Your task to perform on an android device: Search for "dell alienware" on target, select the first entry, add it to the cart, then select checkout. Image 0: 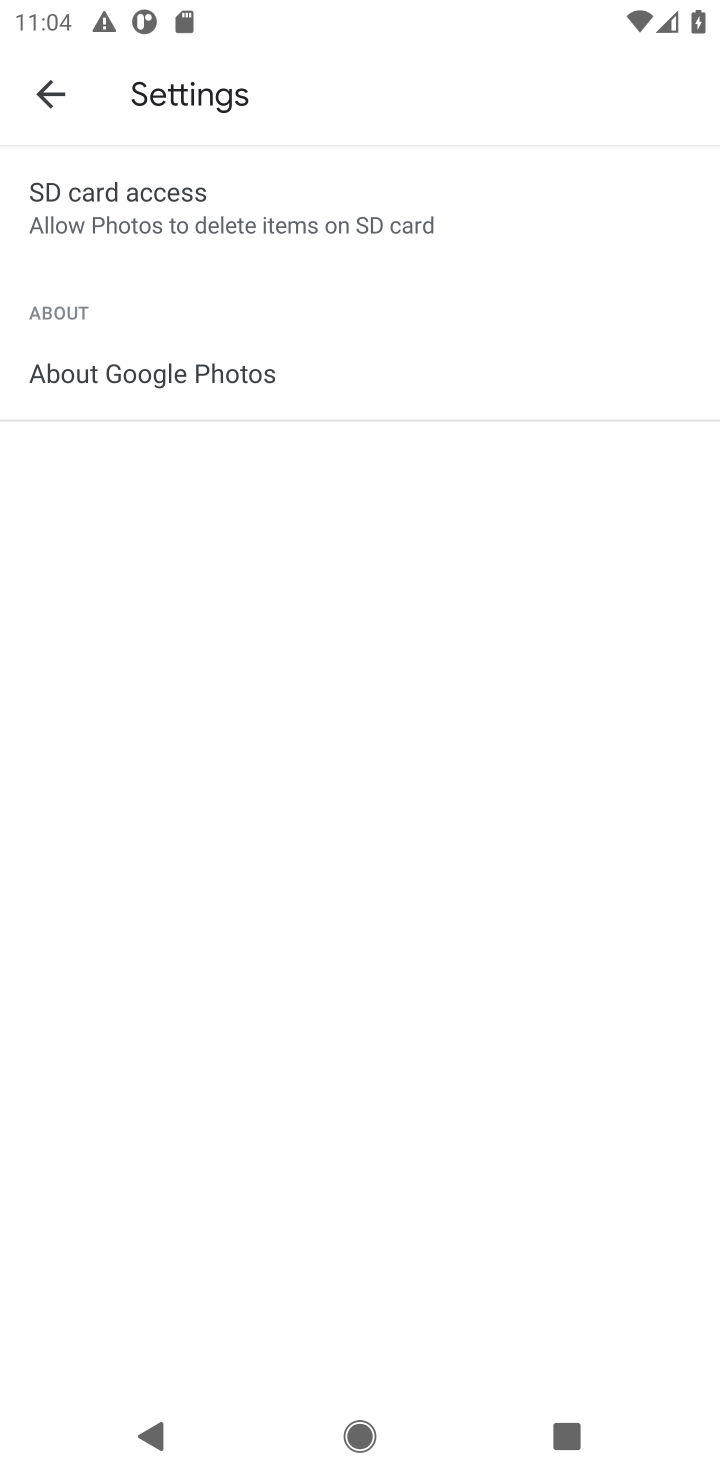
Step 0: press home button
Your task to perform on an android device: Search for "dell alienware" on target, select the first entry, add it to the cart, then select checkout. Image 1: 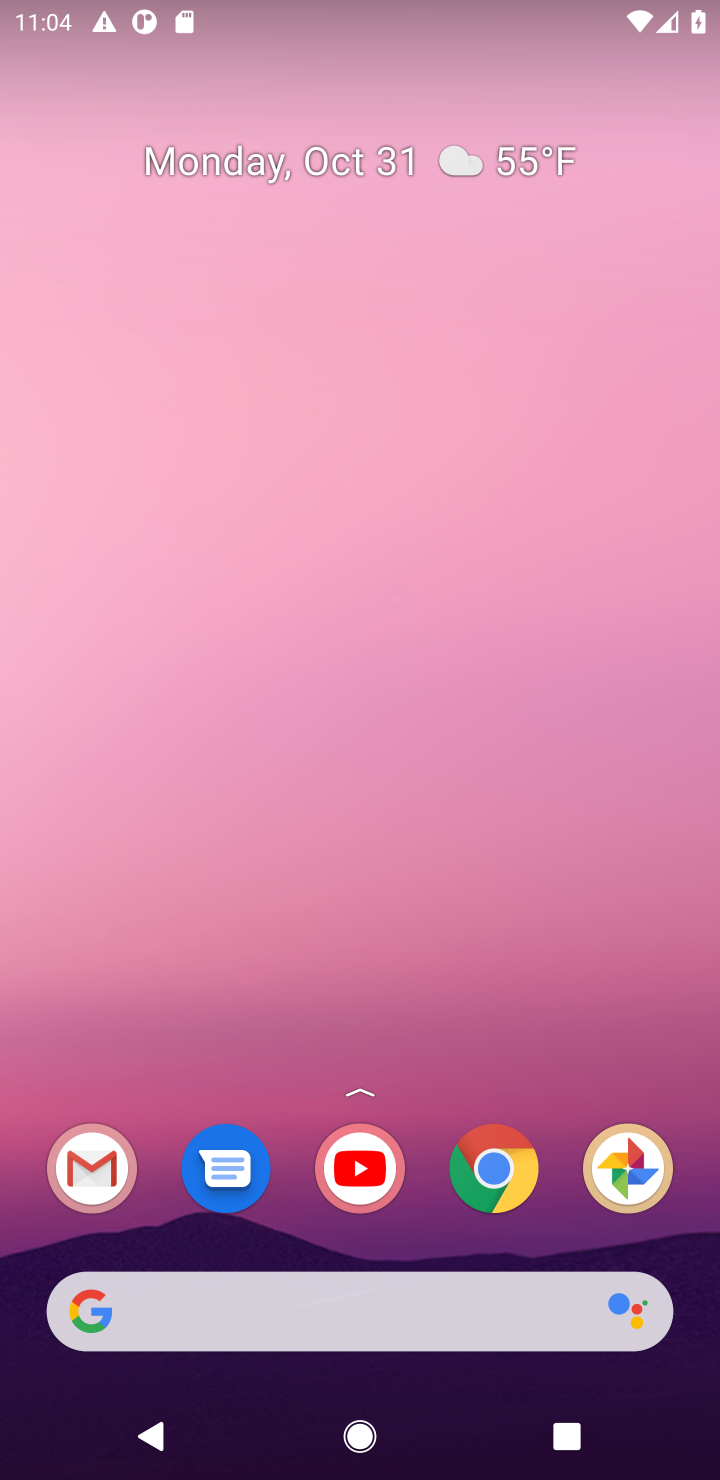
Step 1: click (497, 1184)
Your task to perform on an android device: Search for "dell alienware" on target, select the first entry, add it to the cart, then select checkout. Image 2: 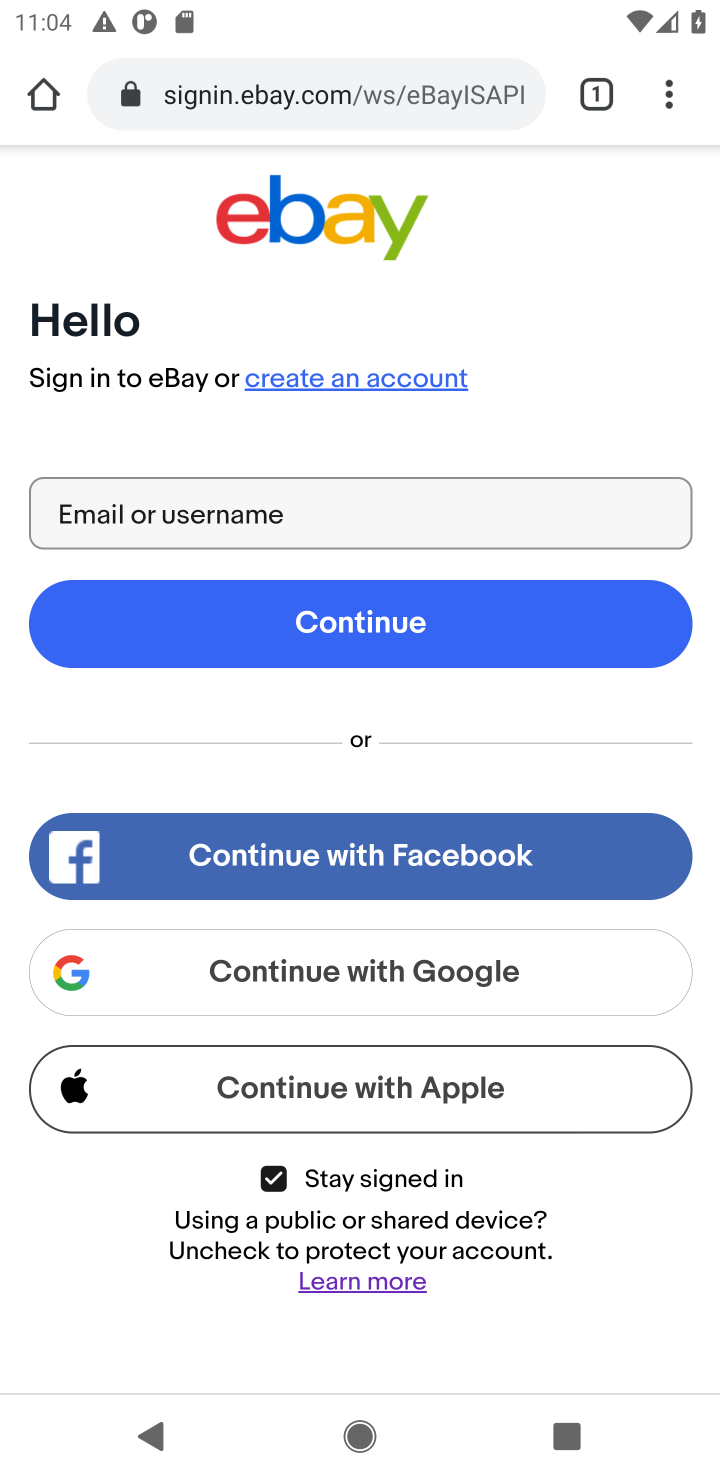
Step 2: click (400, 99)
Your task to perform on an android device: Search for "dell alienware" on target, select the first entry, add it to the cart, then select checkout. Image 3: 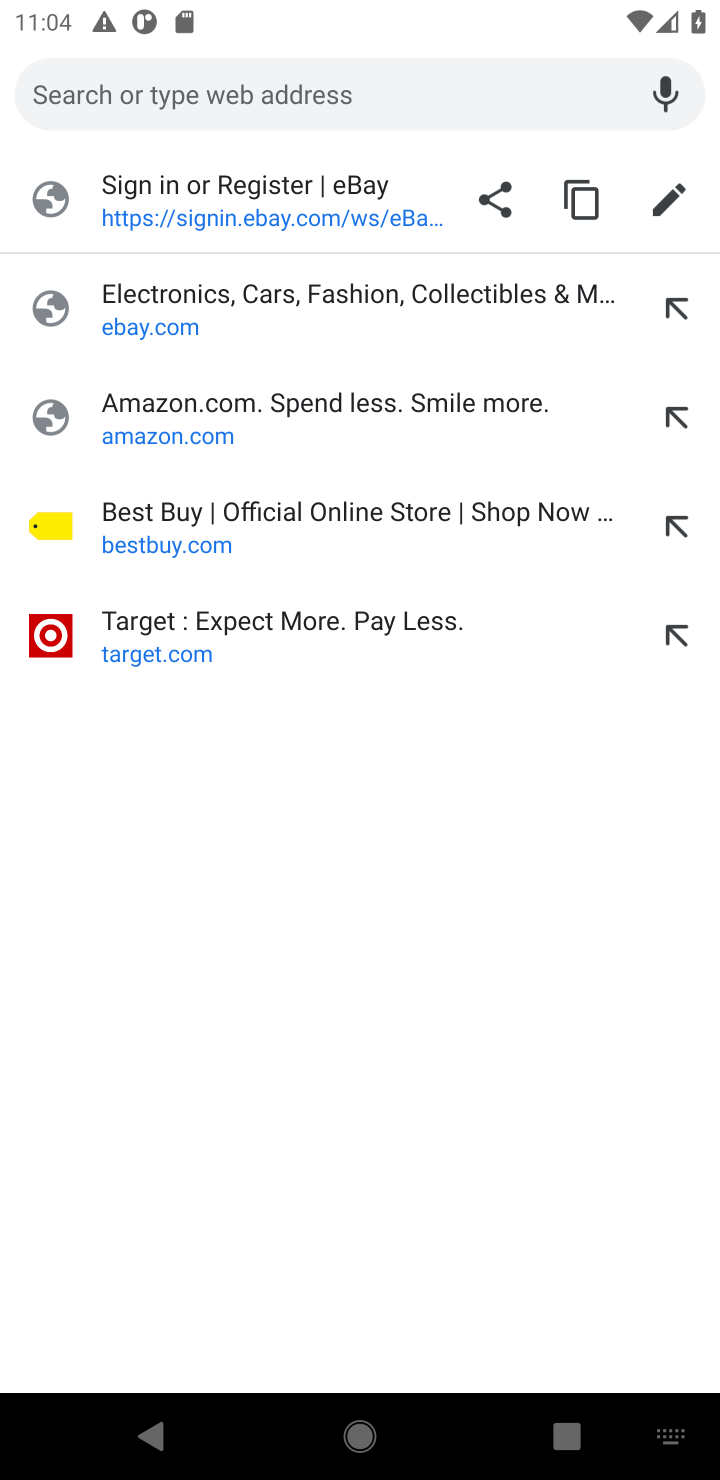
Step 3: type "target"
Your task to perform on an android device: Search for "dell alienware" on target, select the first entry, add it to the cart, then select checkout. Image 4: 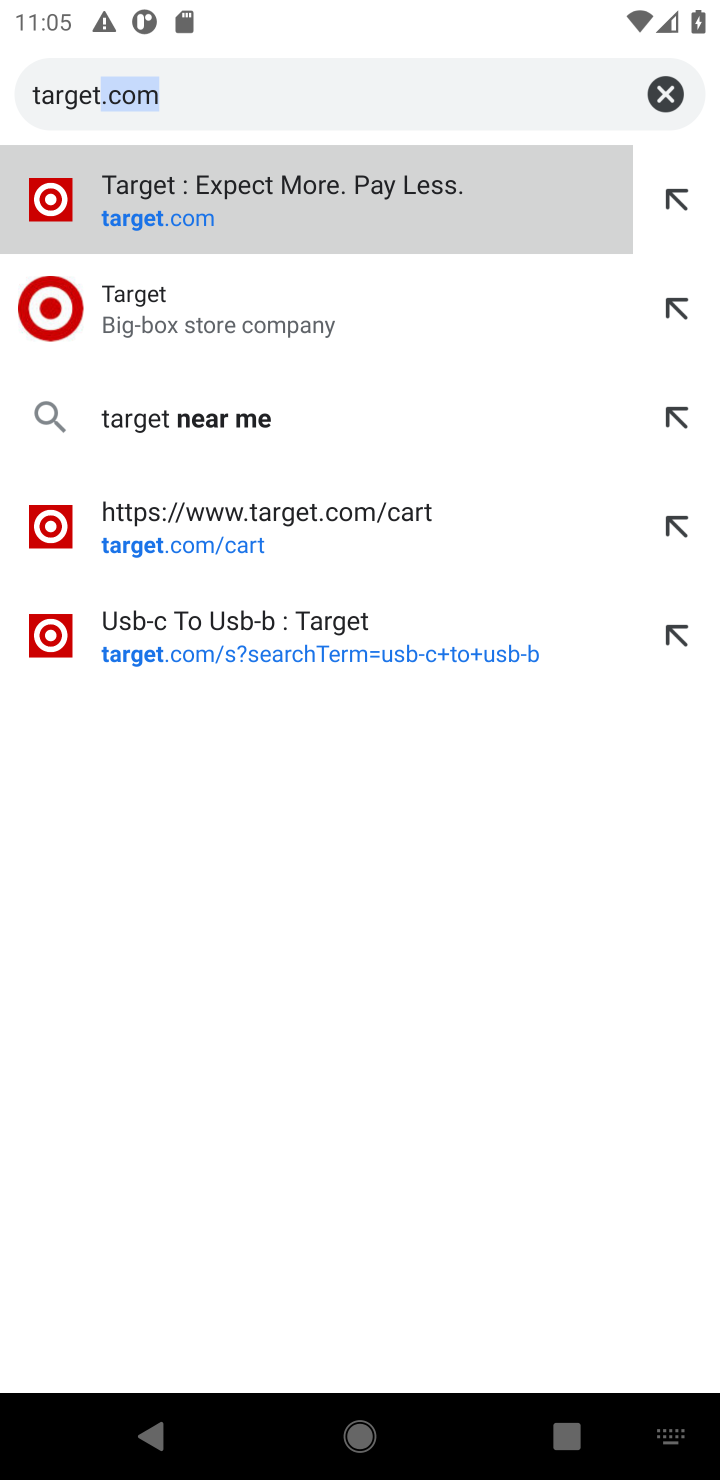
Step 4: press enter
Your task to perform on an android device: Search for "dell alienware" on target, select the first entry, add it to the cart, then select checkout. Image 5: 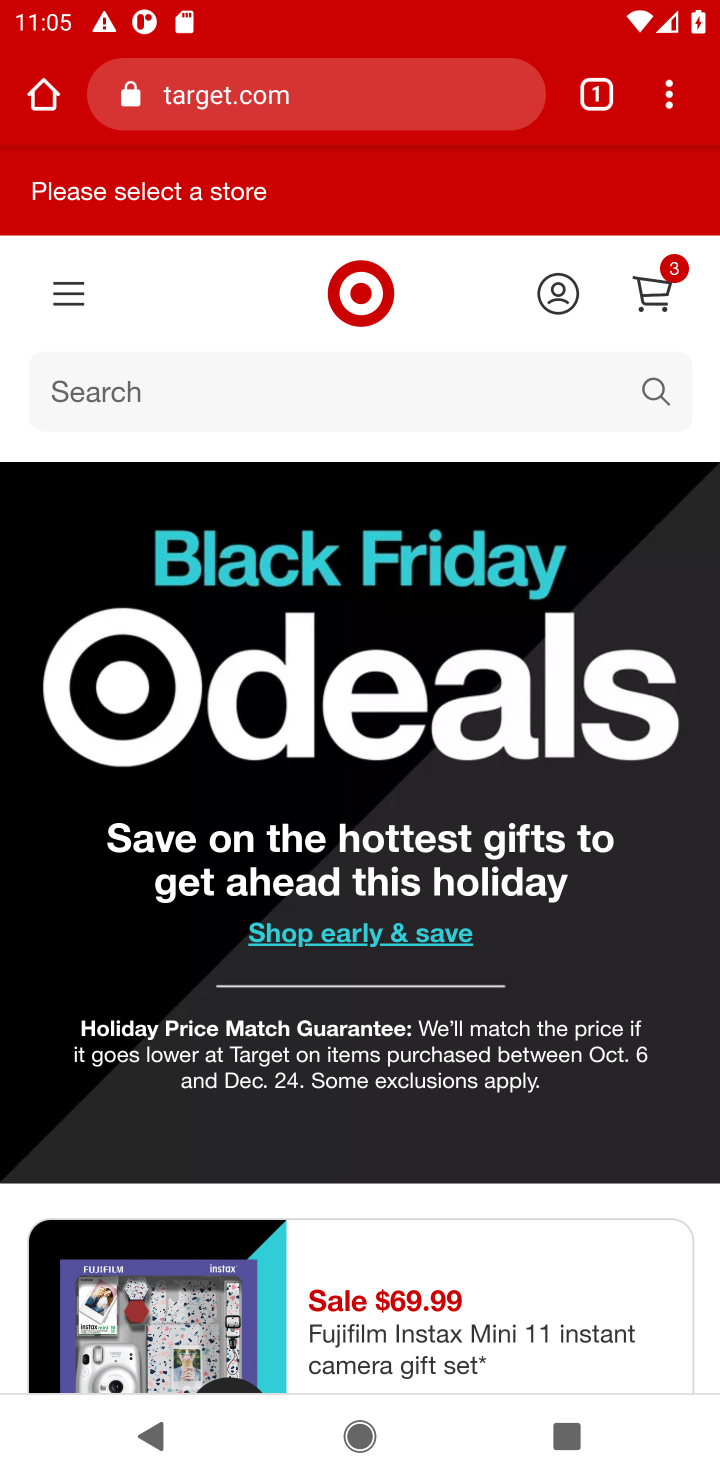
Step 5: click (311, 382)
Your task to perform on an android device: Search for "dell alienware" on target, select the first entry, add it to the cart, then select checkout. Image 6: 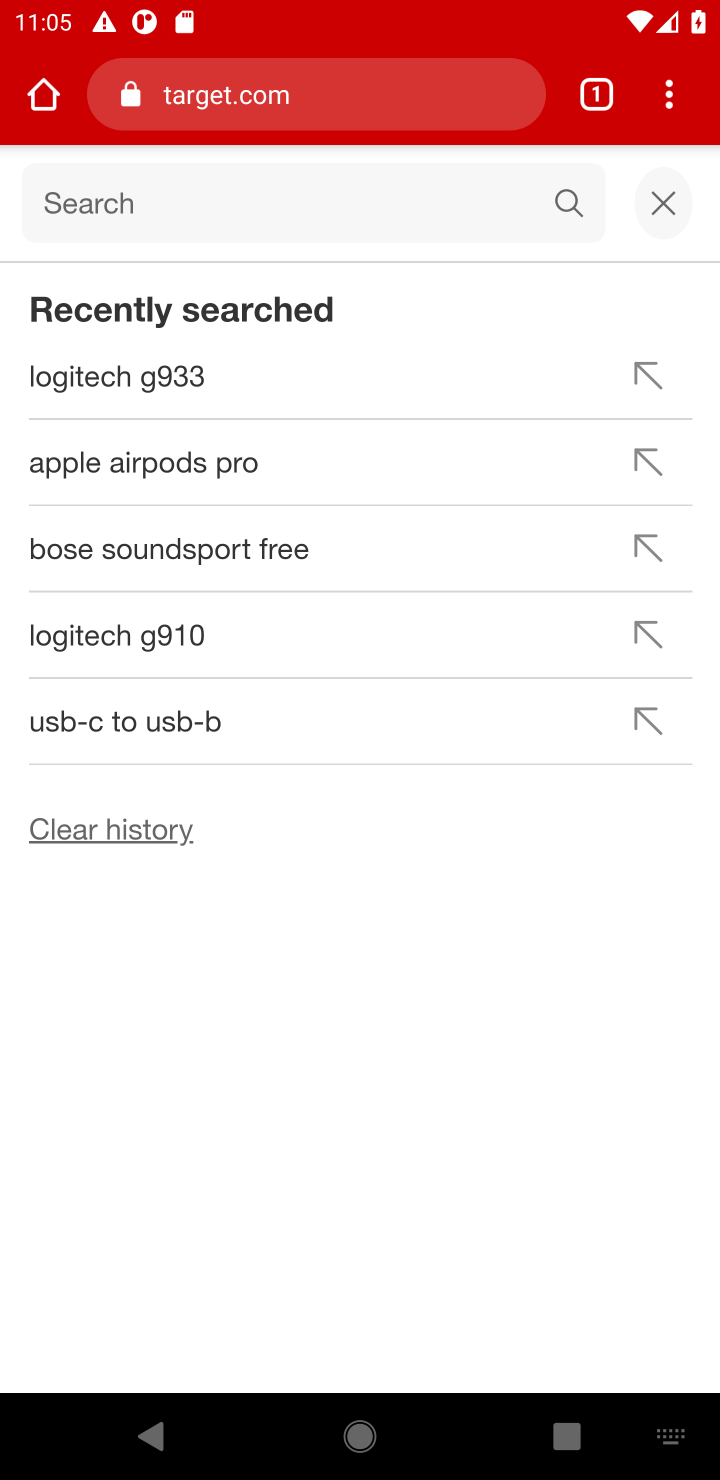
Step 6: type "dell alienware"
Your task to perform on an android device: Search for "dell alienware" on target, select the first entry, add it to the cart, then select checkout. Image 7: 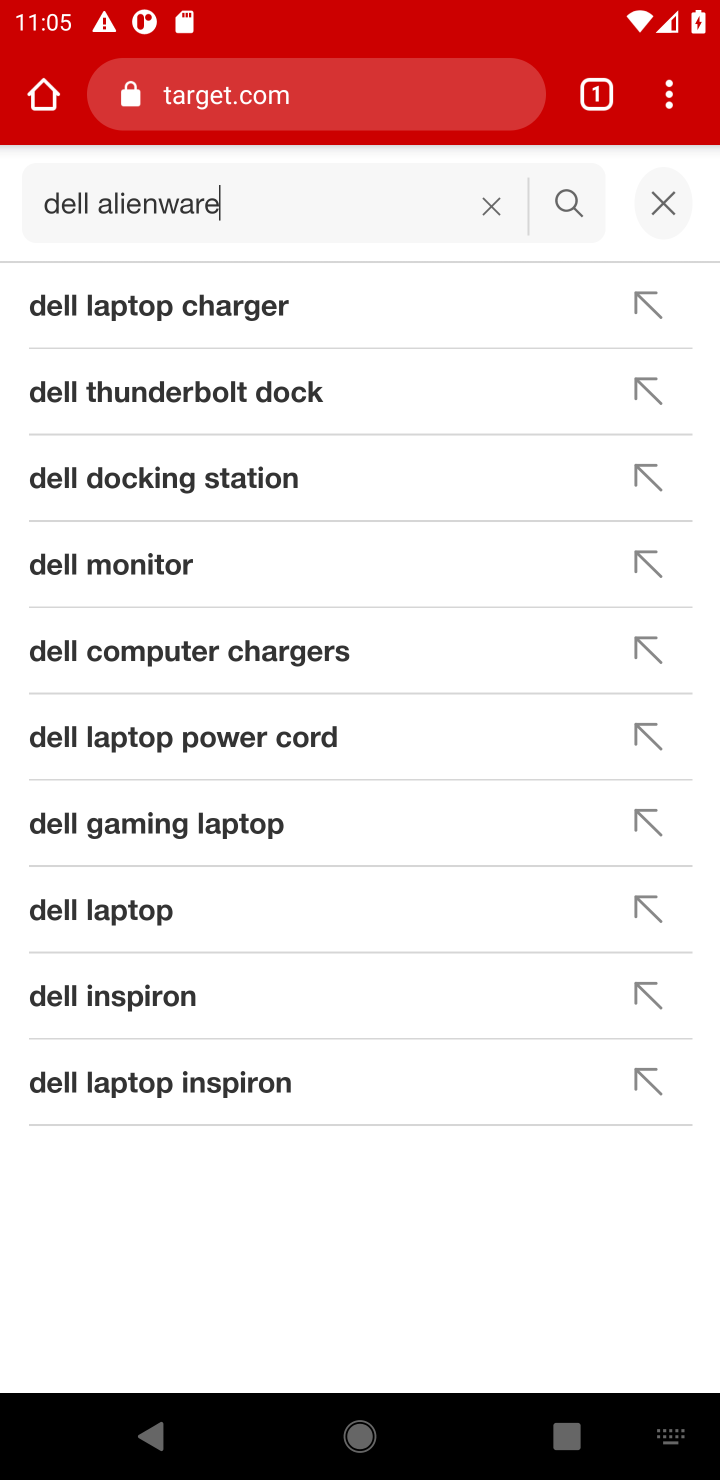
Step 7: press enter
Your task to perform on an android device: Search for "dell alienware" on target, select the first entry, add it to the cart, then select checkout. Image 8: 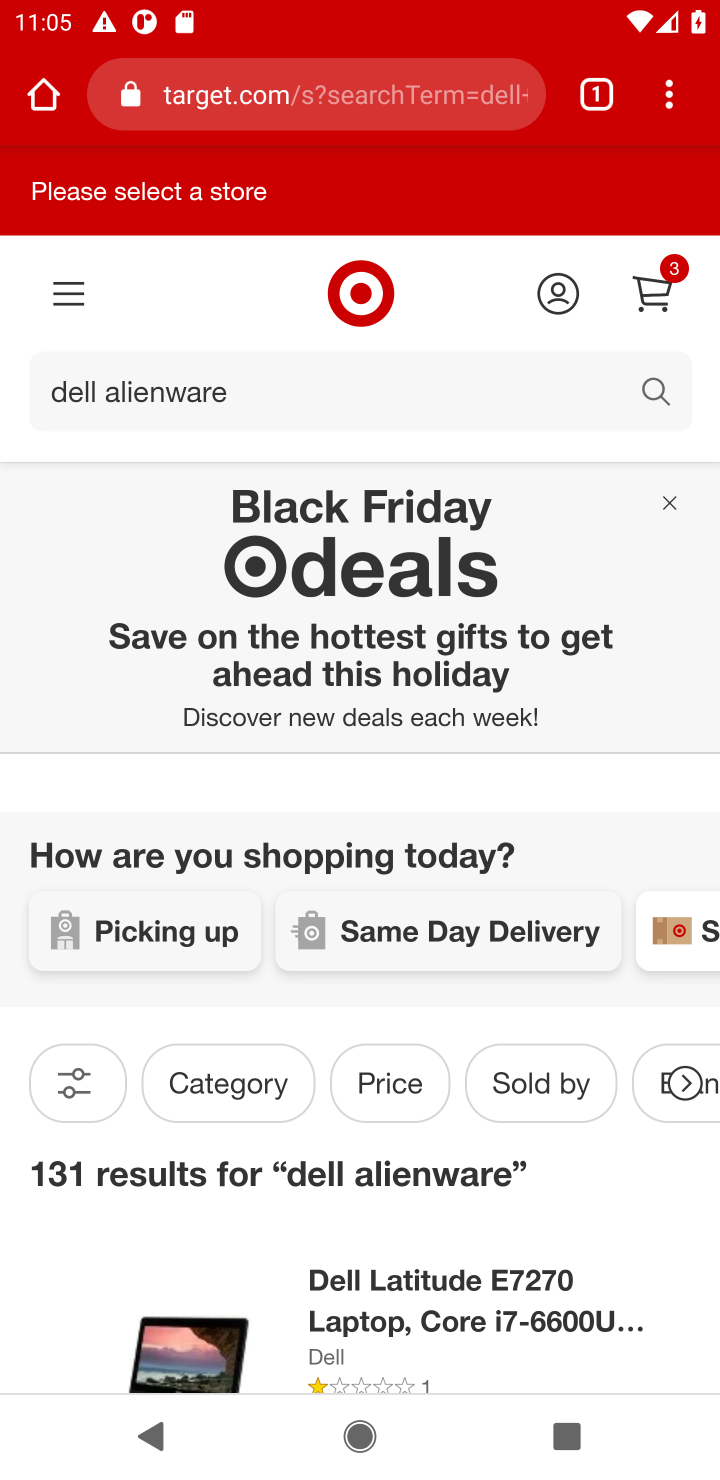
Step 8: drag from (468, 1006) to (457, 623)
Your task to perform on an android device: Search for "dell alienware" on target, select the first entry, add it to the cart, then select checkout. Image 9: 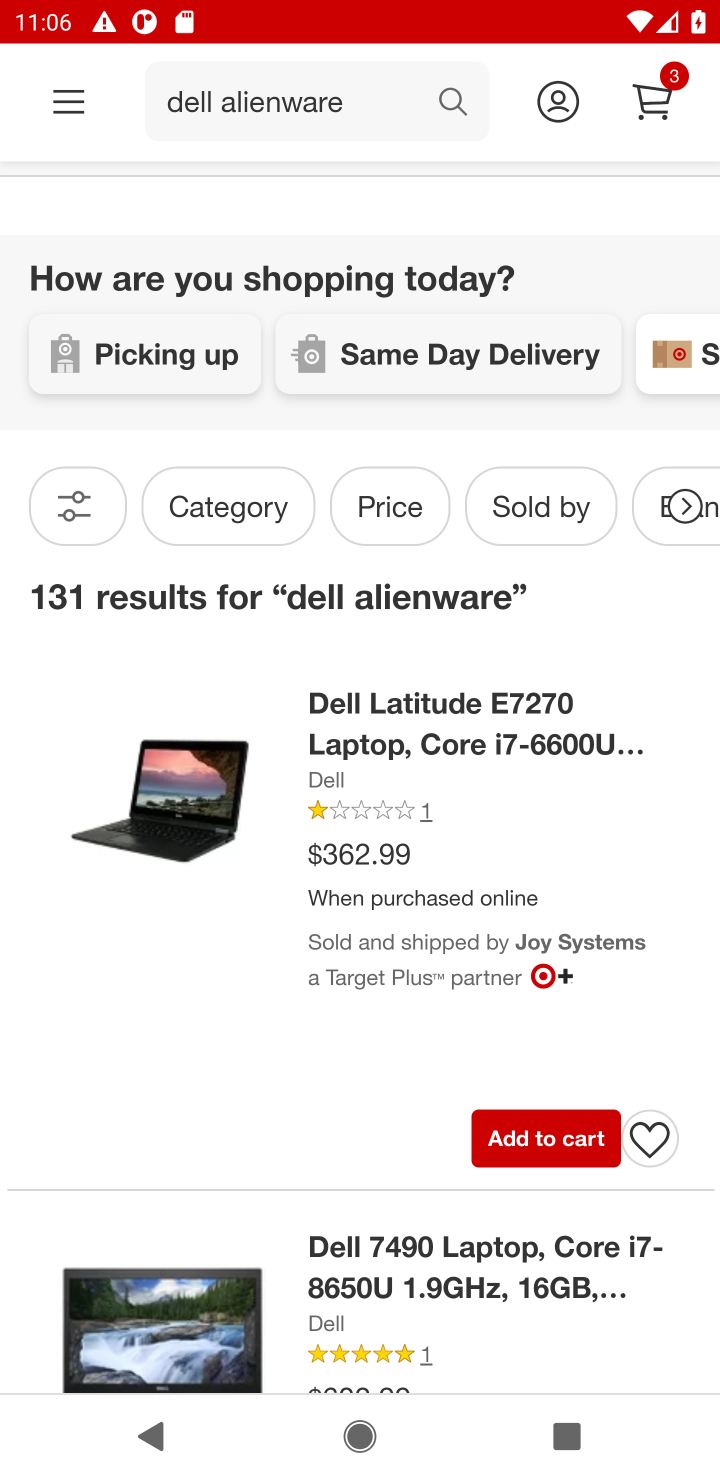
Step 9: drag from (257, 1163) to (254, 799)
Your task to perform on an android device: Search for "dell alienware" on target, select the first entry, add it to the cart, then select checkout. Image 10: 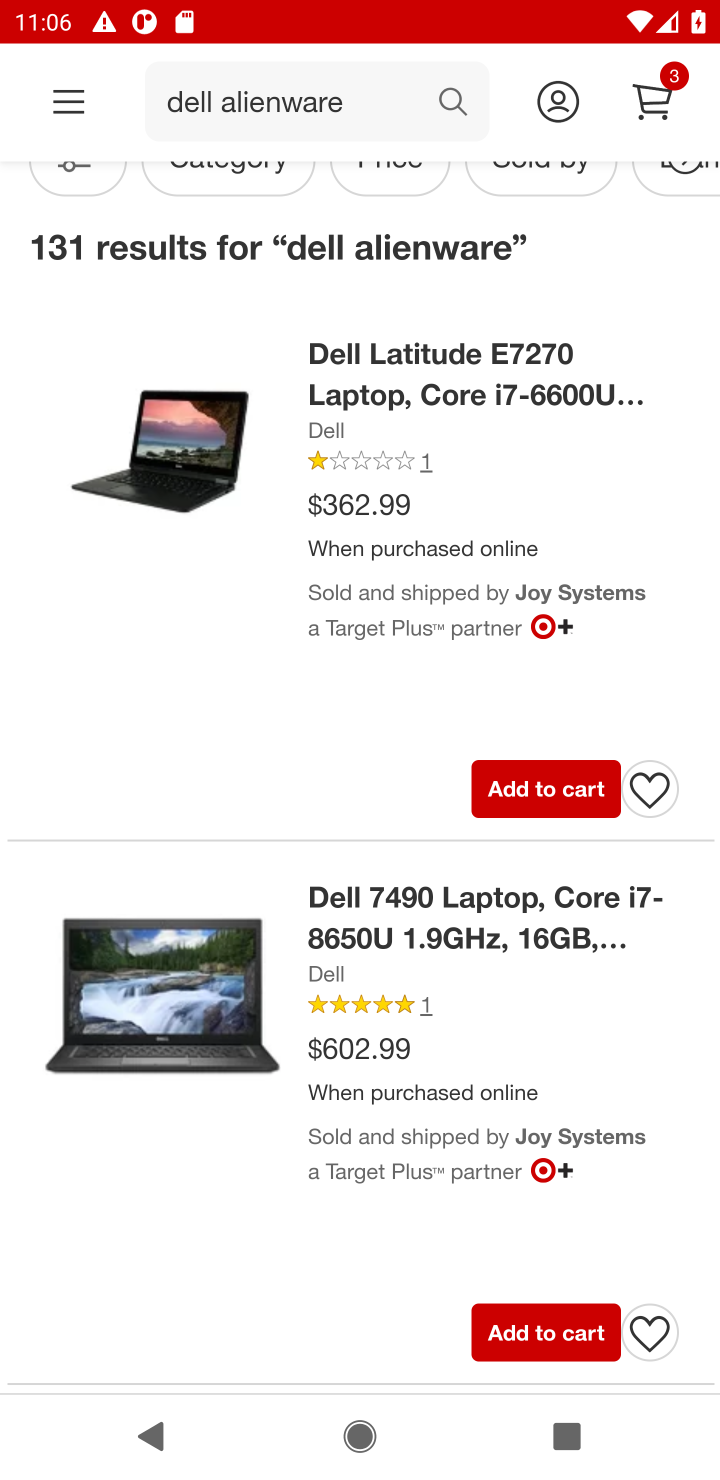
Step 10: drag from (341, 1317) to (315, 647)
Your task to perform on an android device: Search for "dell alienware" on target, select the first entry, add it to the cart, then select checkout. Image 11: 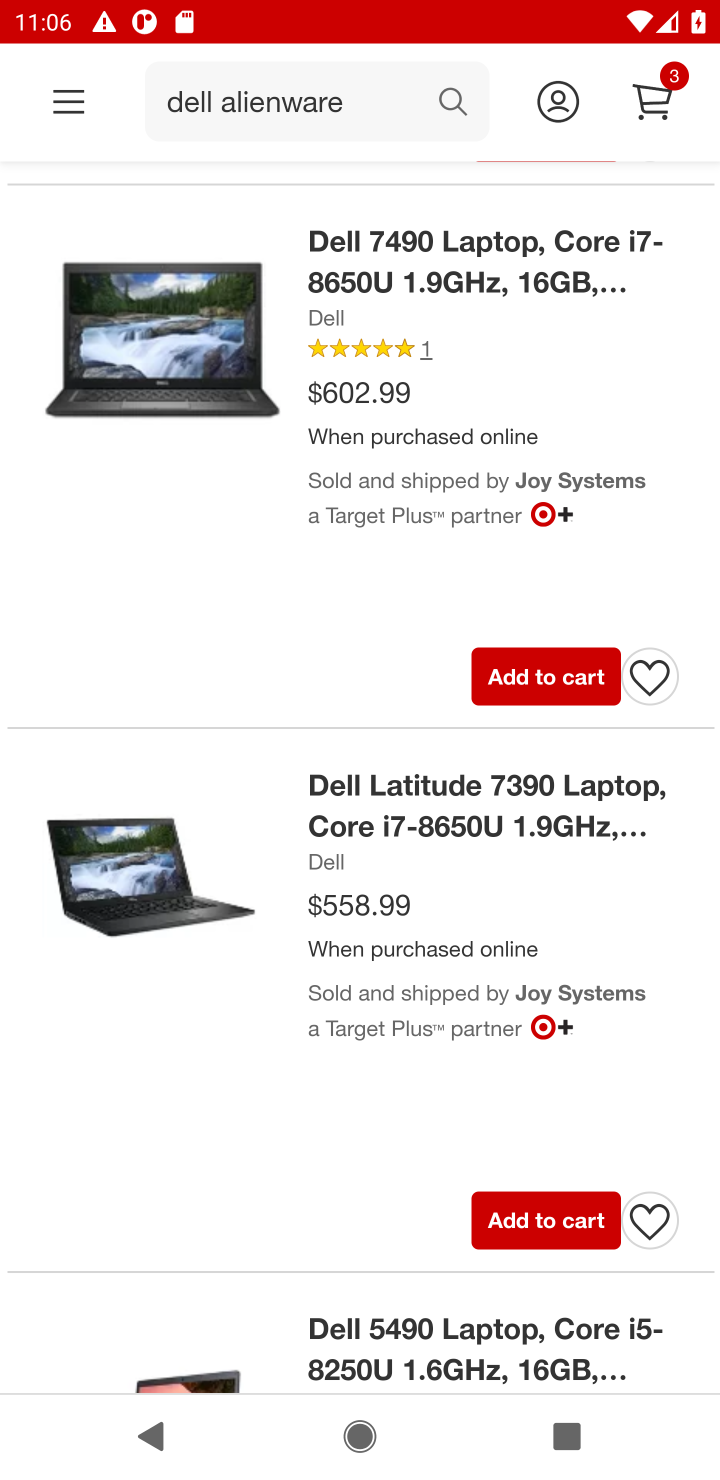
Step 11: drag from (301, 672) to (348, 1451)
Your task to perform on an android device: Search for "dell alienware" on target, select the first entry, add it to the cart, then select checkout. Image 12: 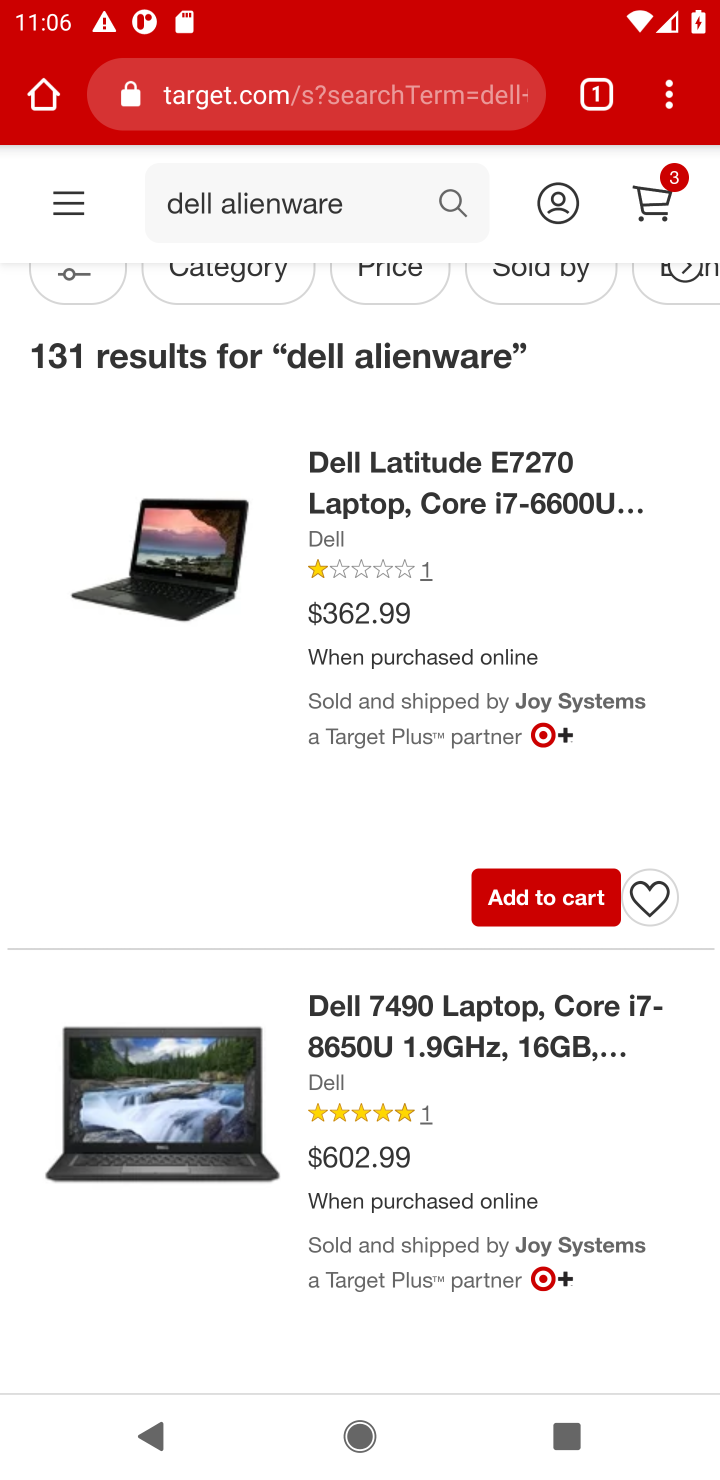
Step 12: click (459, 484)
Your task to perform on an android device: Search for "dell alienware" on target, select the first entry, add it to the cart, then select checkout. Image 13: 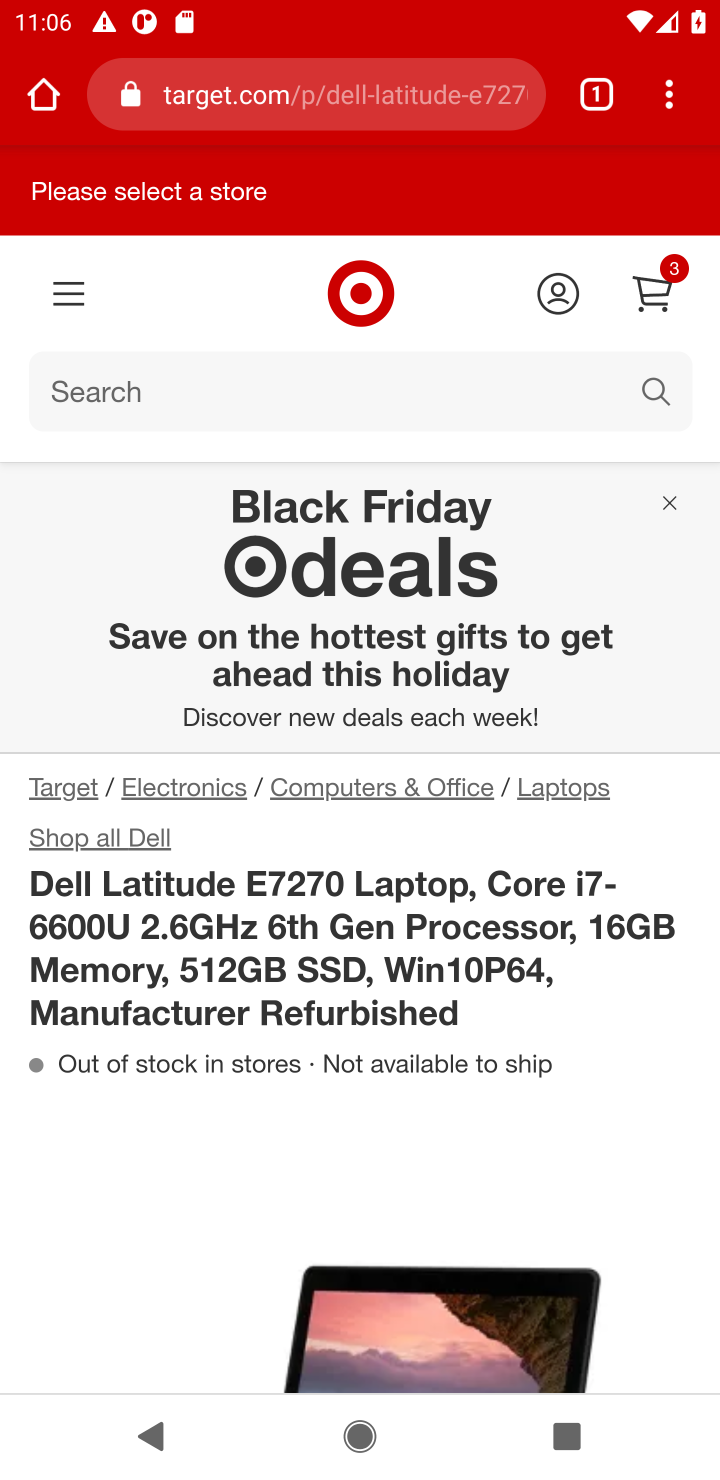
Step 13: drag from (633, 1078) to (577, 150)
Your task to perform on an android device: Search for "dell alienware" on target, select the first entry, add it to the cart, then select checkout. Image 14: 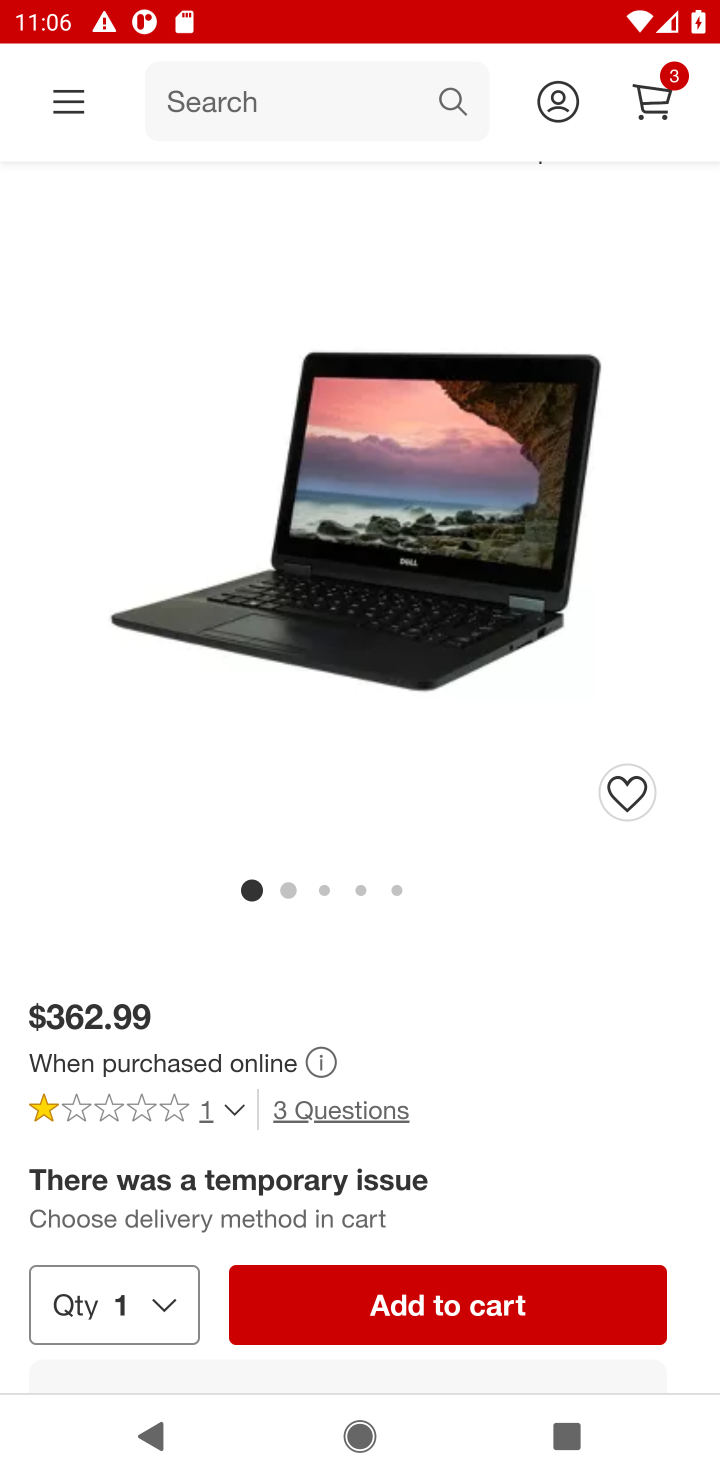
Step 14: click (391, 1309)
Your task to perform on an android device: Search for "dell alienware" on target, select the first entry, add it to the cart, then select checkout. Image 15: 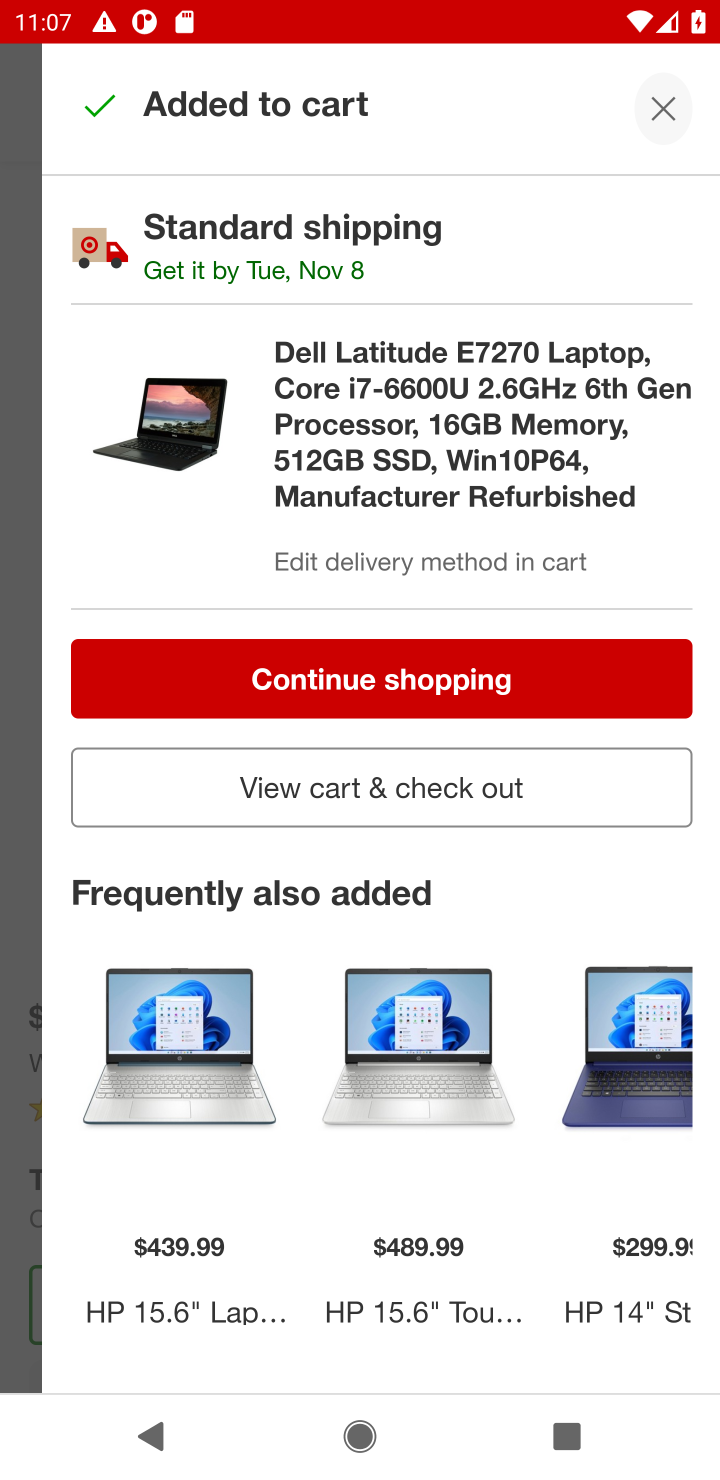
Step 15: click (383, 791)
Your task to perform on an android device: Search for "dell alienware" on target, select the first entry, add it to the cart, then select checkout. Image 16: 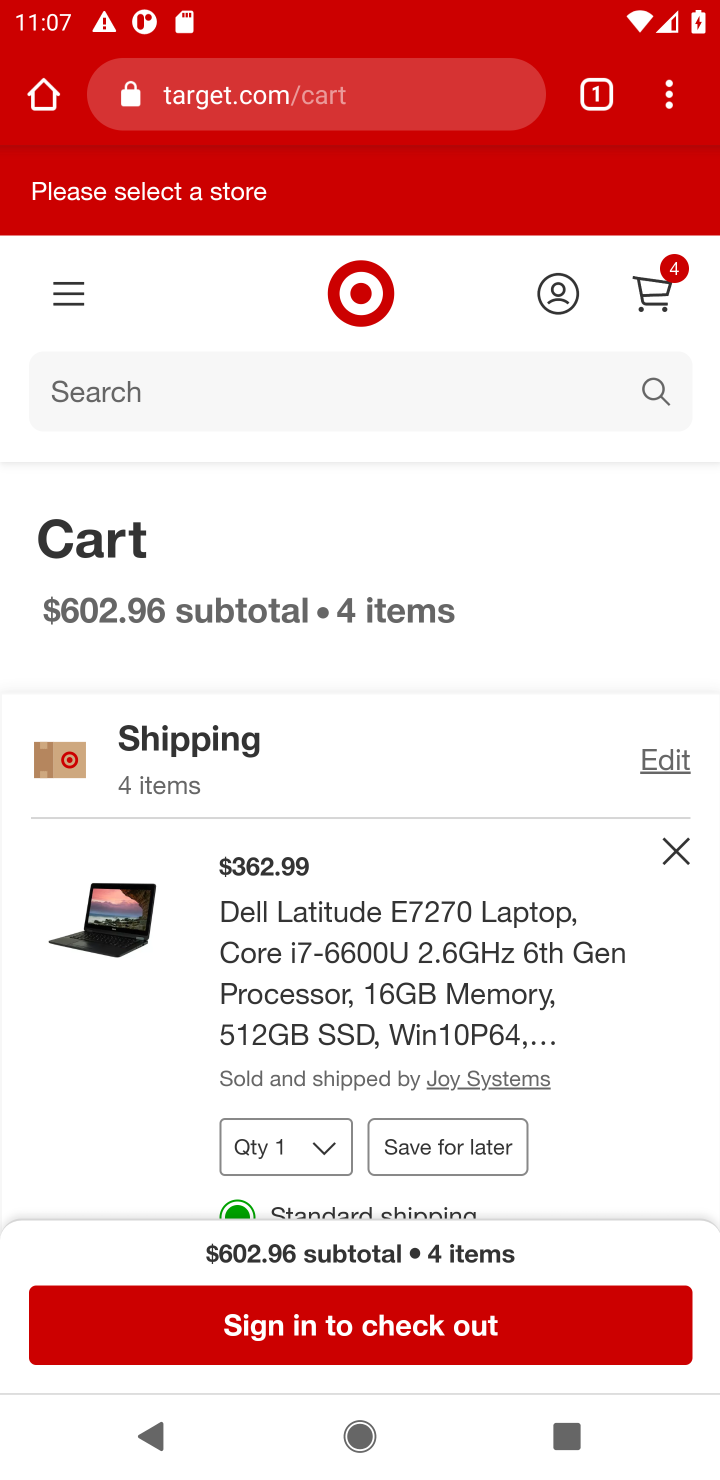
Step 16: click (368, 1331)
Your task to perform on an android device: Search for "dell alienware" on target, select the first entry, add it to the cart, then select checkout. Image 17: 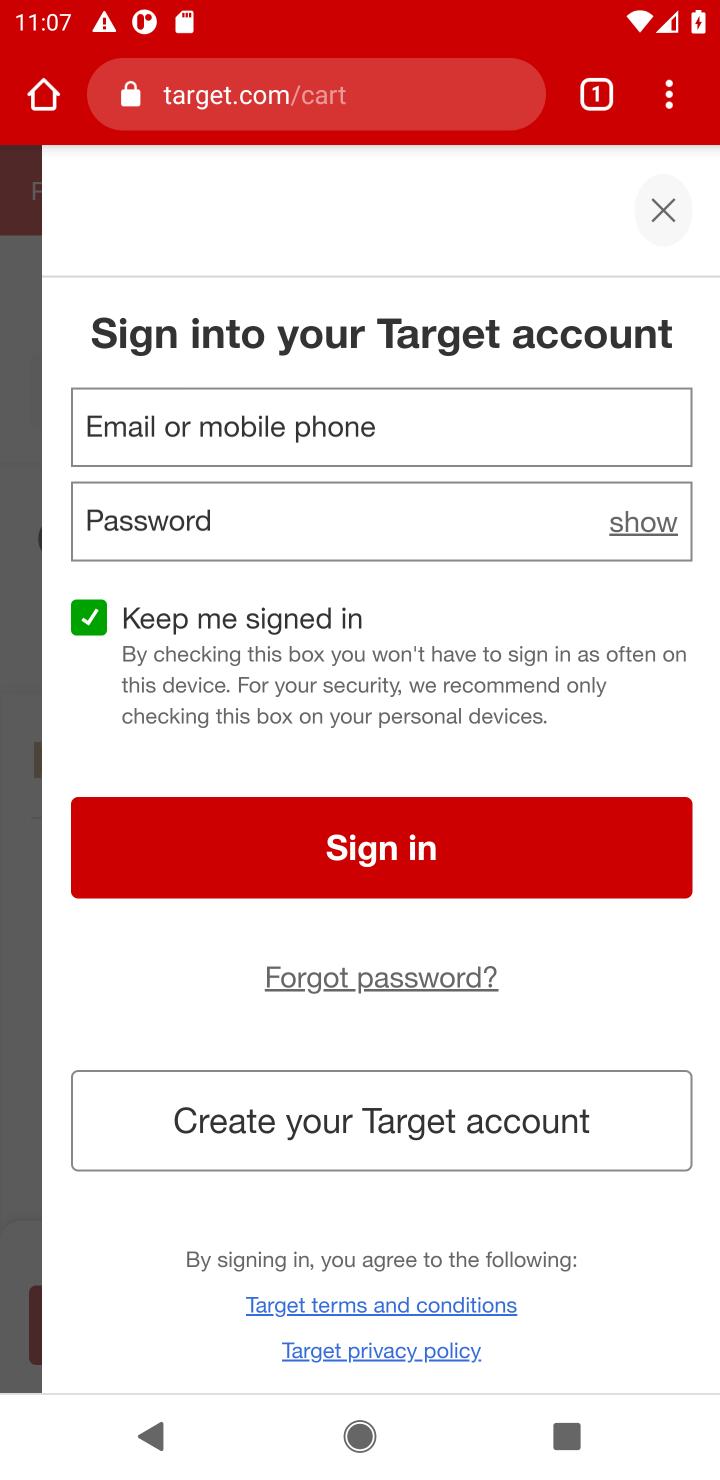
Step 17: task complete